Your task to perform on an android device: turn off wifi Image 0: 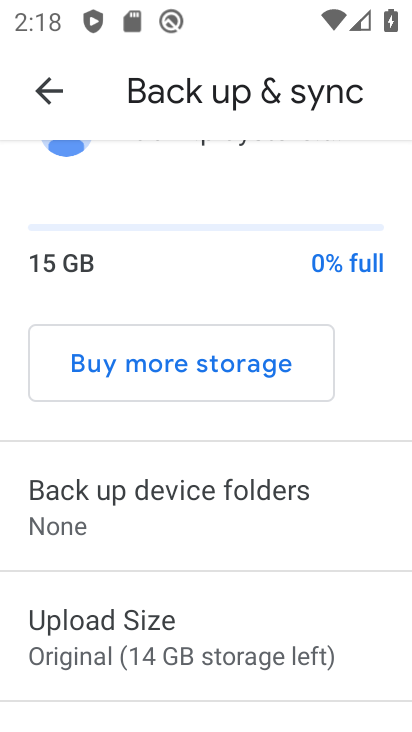
Step 0: press home button
Your task to perform on an android device: turn off wifi Image 1: 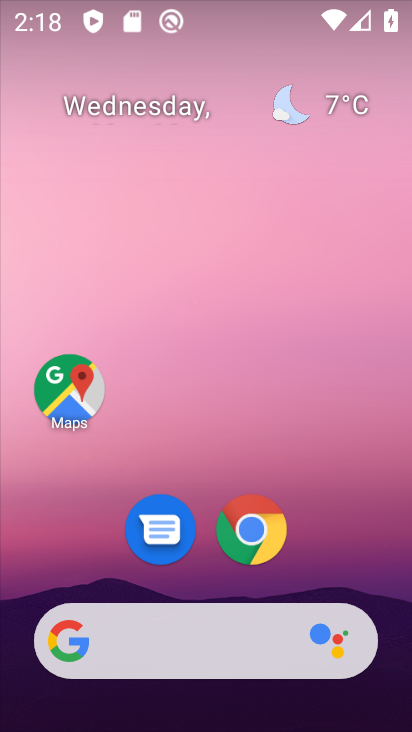
Step 1: drag from (358, 548) to (301, 55)
Your task to perform on an android device: turn off wifi Image 2: 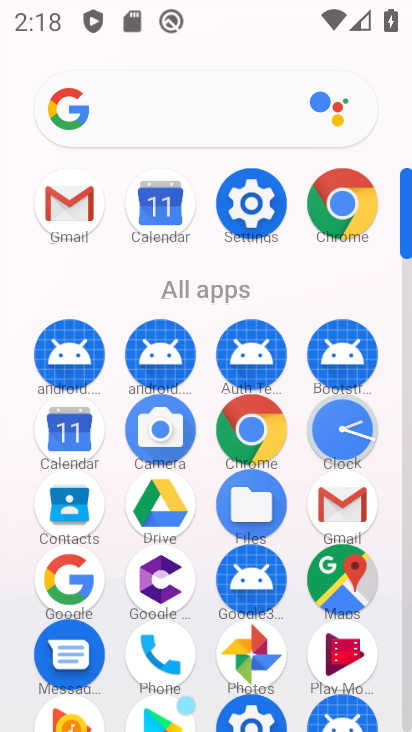
Step 2: click (235, 232)
Your task to perform on an android device: turn off wifi Image 3: 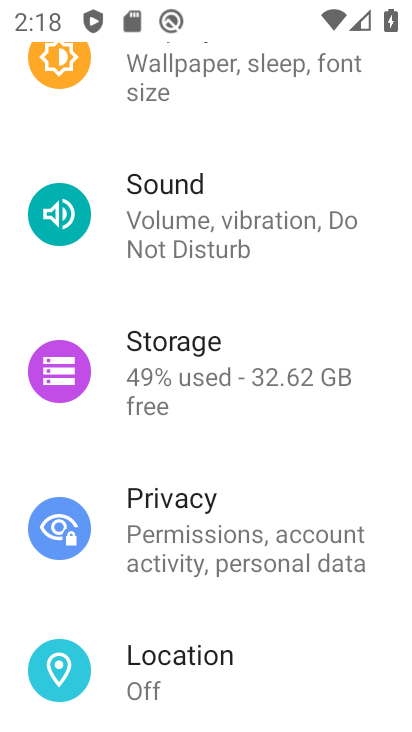
Step 3: drag from (310, 311) to (365, 688)
Your task to perform on an android device: turn off wifi Image 4: 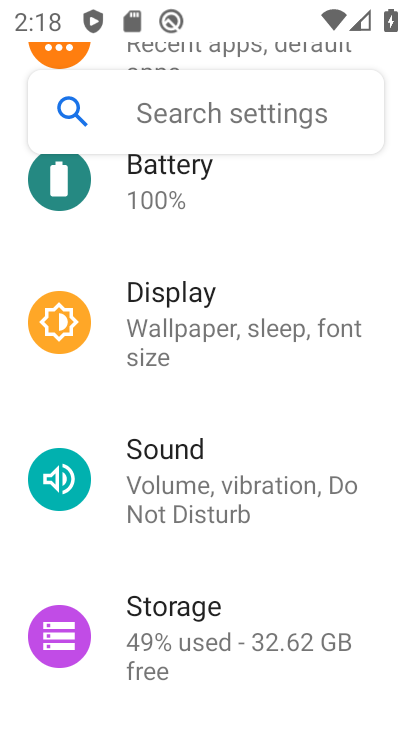
Step 4: drag from (260, 252) to (323, 641)
Your task to perform on an android device: turn off wifi Image 5: 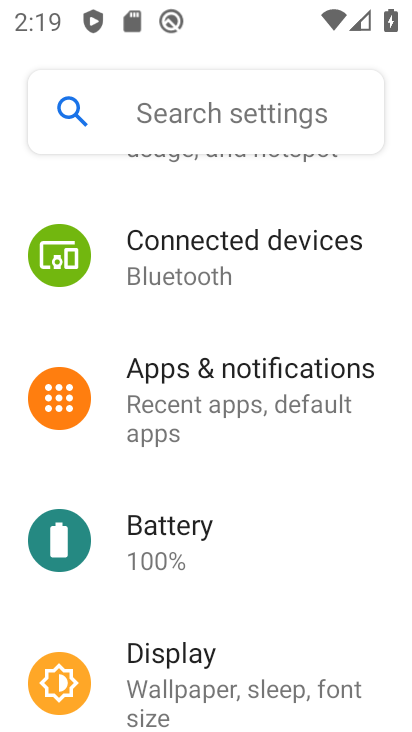
Step 5: drag from (284, 346) to (293, 580)
Your task to perform on an android device: turn off wifi Image 6: 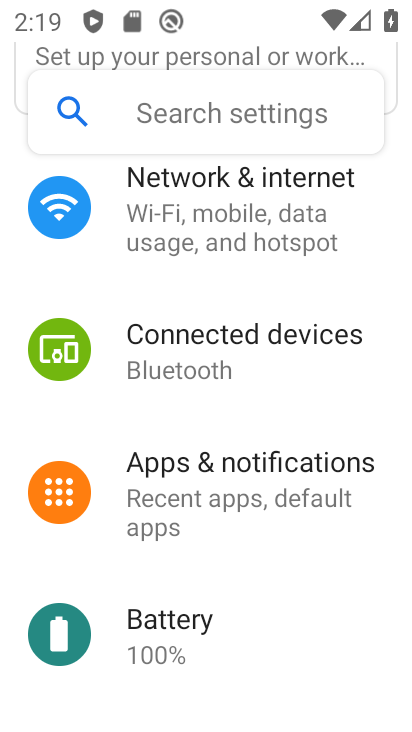
Step 6: drag from (252, 228) to (309, 592)
Your task to perform on an android device: turn off wifi Image 7: 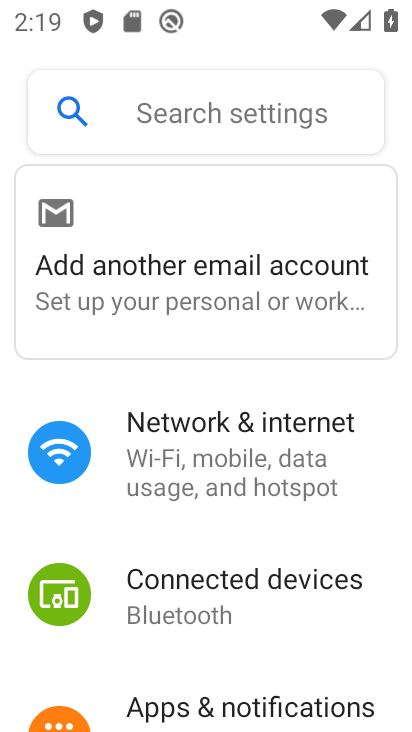
Step 7: click (253, 443)
Your task to perform on an android device: turn off wifi Image 8: 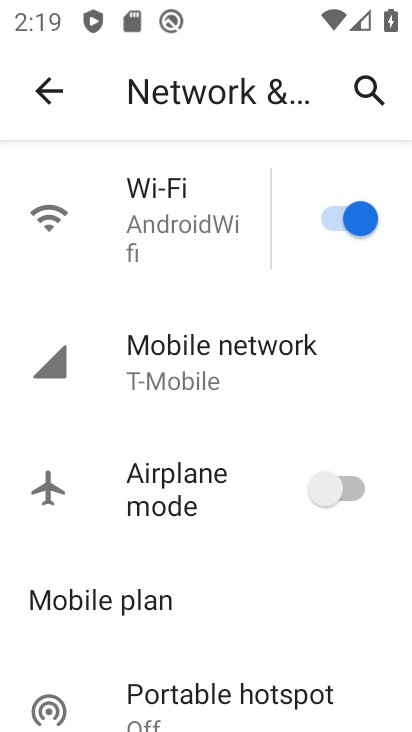
Step 8: click (345, 227)
Your task to perform on an android device: turn off wifi Image 9: 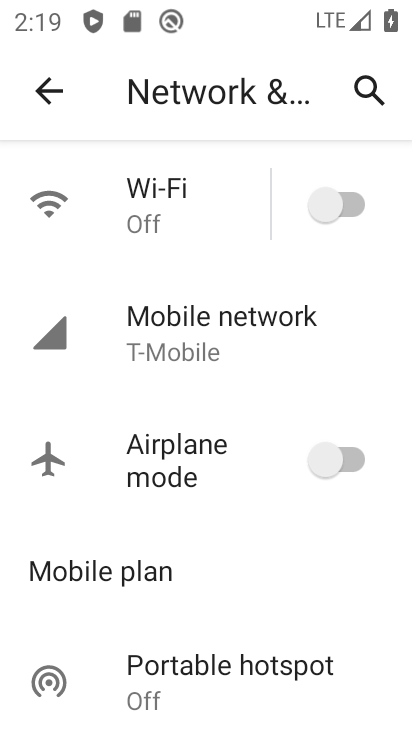
Step 9: task complete